Your task to perform on an android device: check out phone information Image 0: 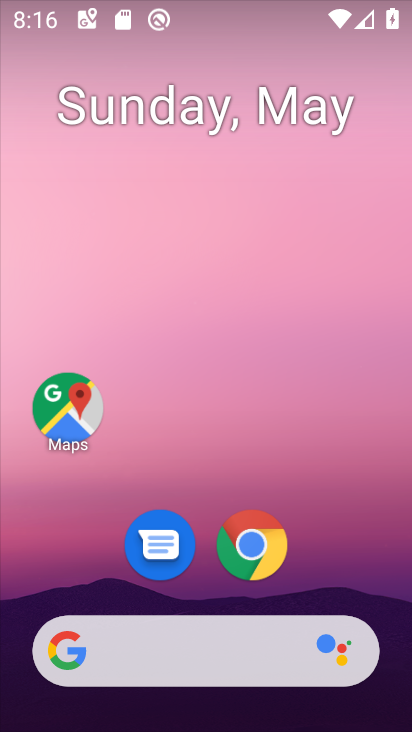
Step 0: drag from (64, 589) to (180, 122)
Your task to perform on an android device: check out phone information Image 1: 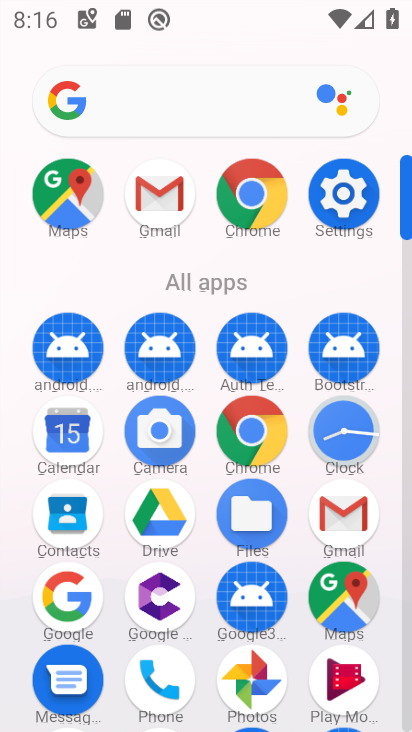
Step 1: drag from (193, 505) to (237, 275)
Your task to perform on an android device: check out phone information Image 2: 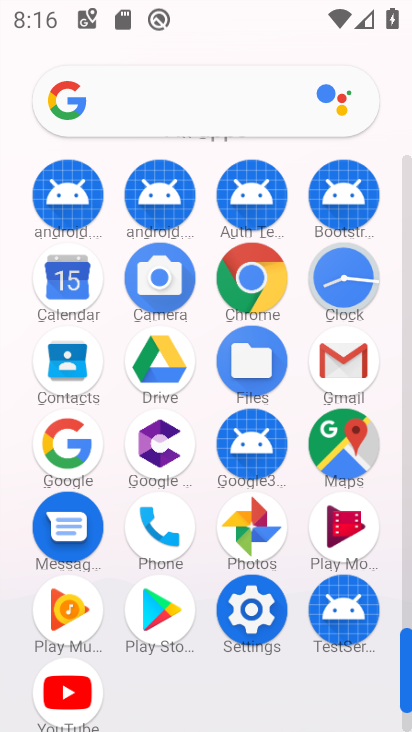
Step 2: click (253, 611)
Your task to perform on an android device: check out phone information Image 3: 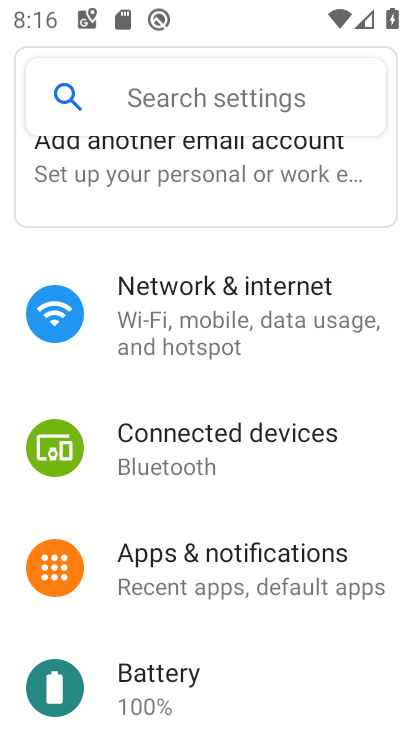
Step 3: drag from (145, 681) to (256, 182)
Your task to perform on an android device: check out phone information Image 4: 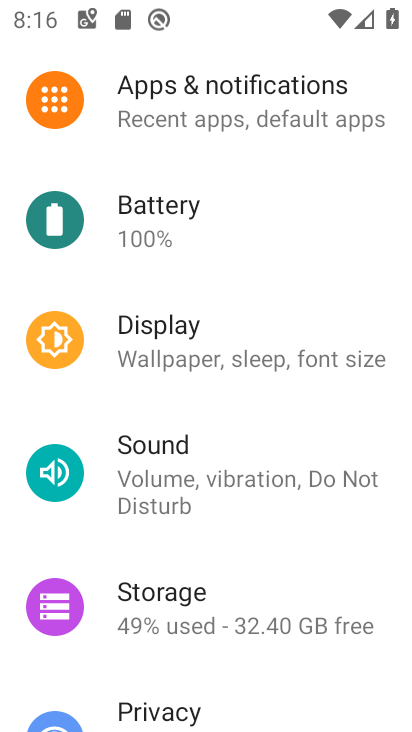
Step 4: drag from (180, 625) to (277, 116)
Your task to perform on an android device: check out phone information Image 5: 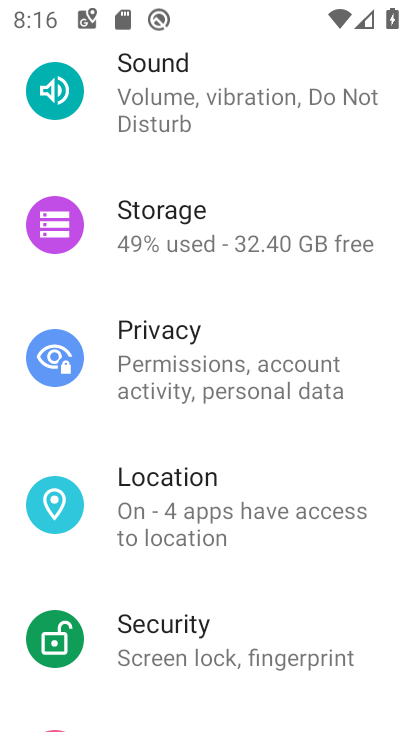
Step 5: drag from (128, 588) to (239, 98)
Your task to perform on an android device: check out phone information Image 6: 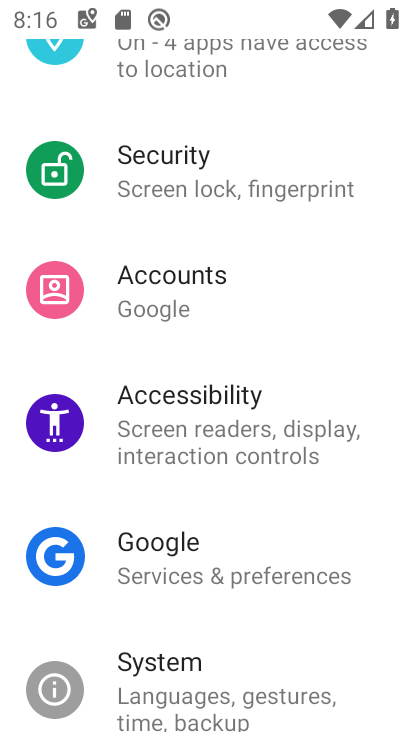
Step 6: drag from (135, 592) to (279, 93)
Your task to perform on an android device: check out phone information Image 7: 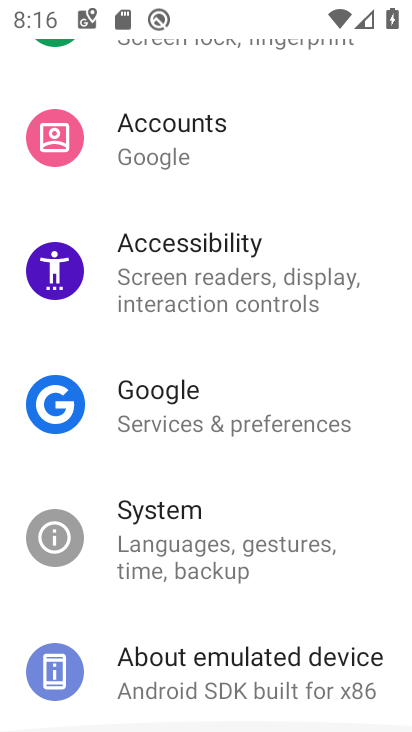
Step 7: drag from (201, 525) to (295, 66)
Your task to perform on an android device: check out phone information Image 8: 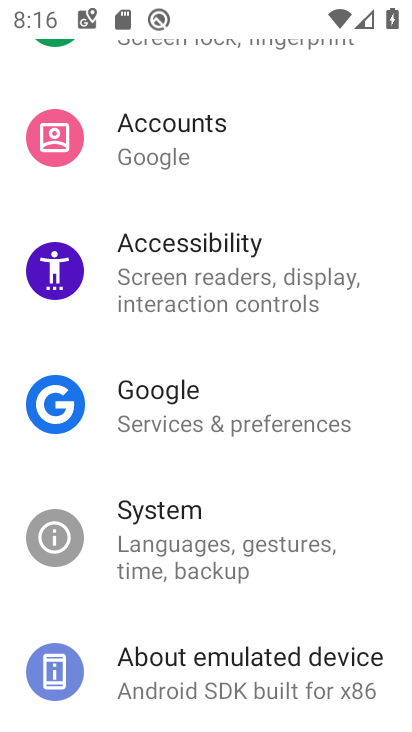
Step 8: click (203, 649)
Your task to perform on an android device: check out phone information Image 9: 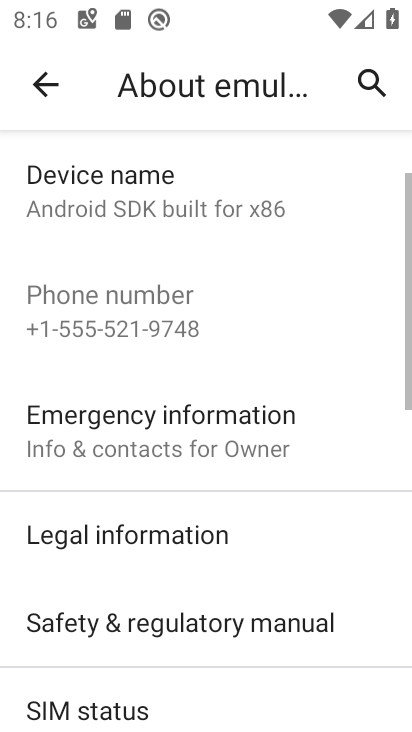
Step 9: task complete